Your task to perform on an android device: Search for handmade jewelry on Etsy. Image 0: 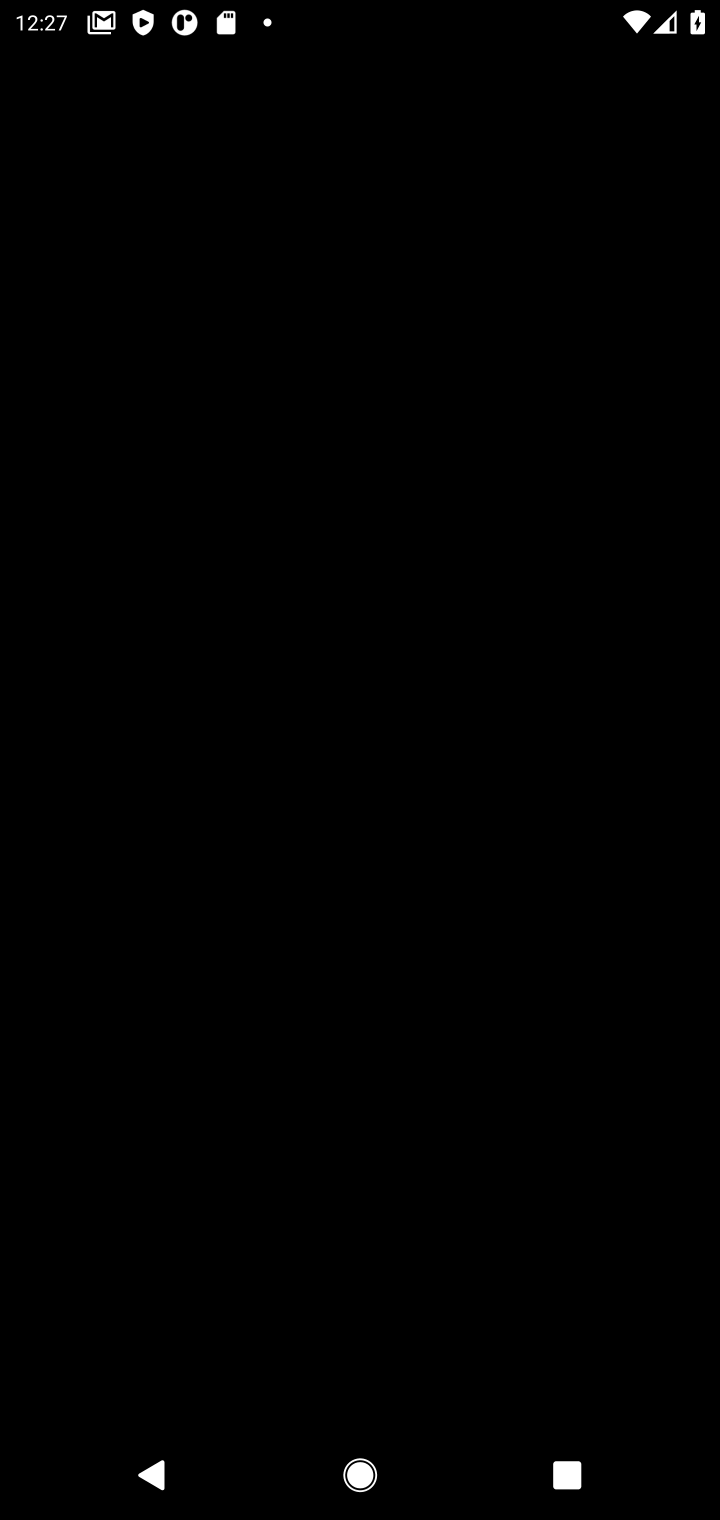
Step 0: press home button
Your task to perform on an android device: Search for handmade jewelry on Etsy. Image 1: 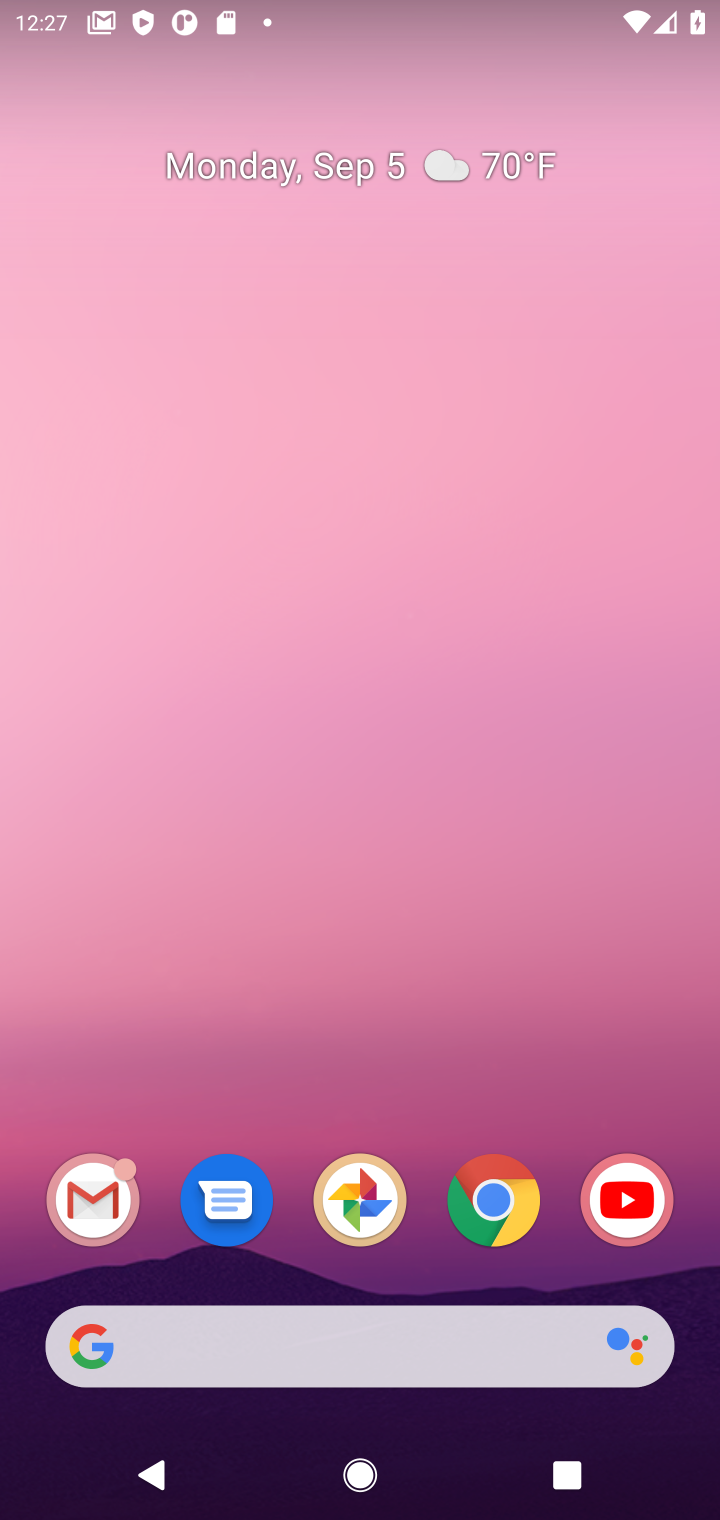
Step 1: click (467, 1207)
Your task to perform on an android device: Search for handmade jewelry on Etsy. Image 2: 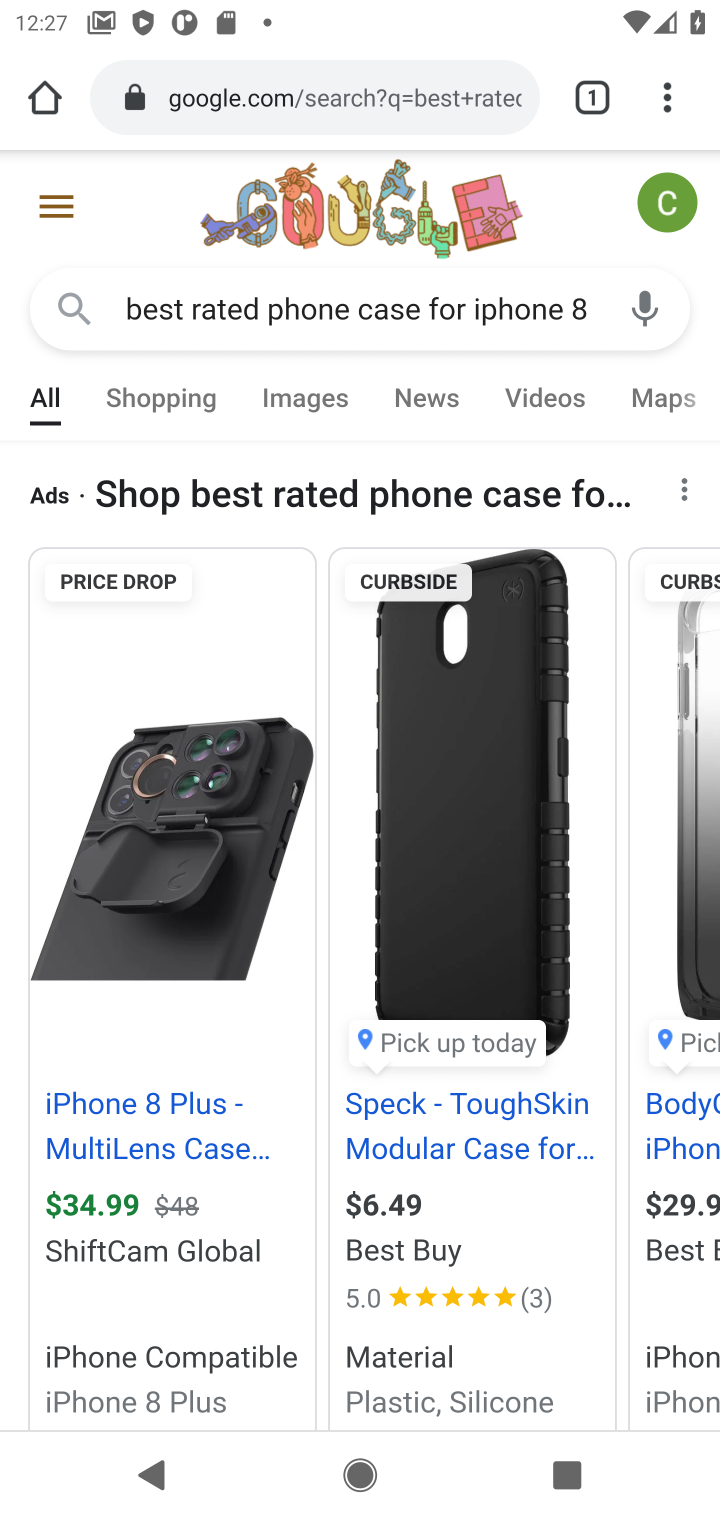
Step 2: click (415, 94)
Your task to perform on an android device: Search for handmade jewelry on Etsy. Image 3: 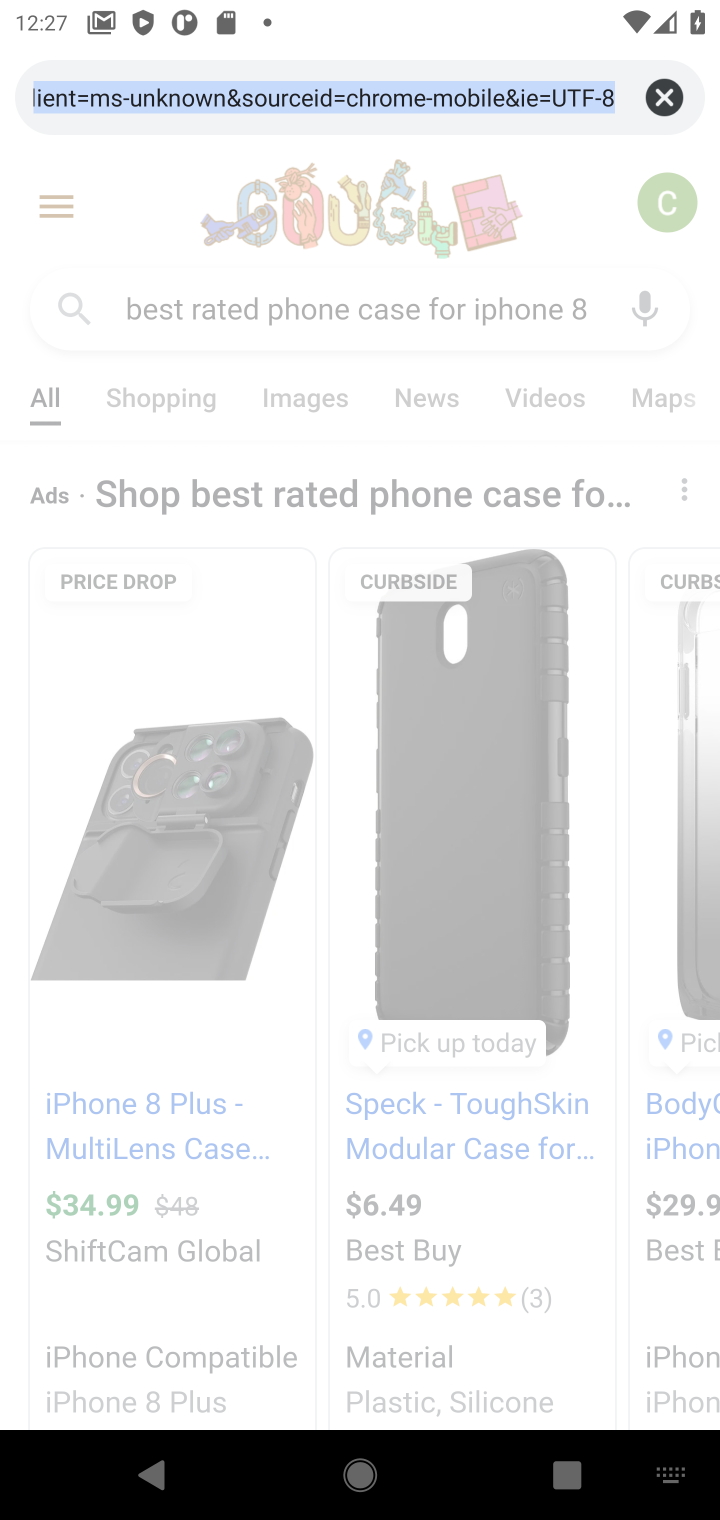
Step 3: type "etsy"
Your task to perform on an android device: Search for handmade jewelry on Etsy. Image 4: 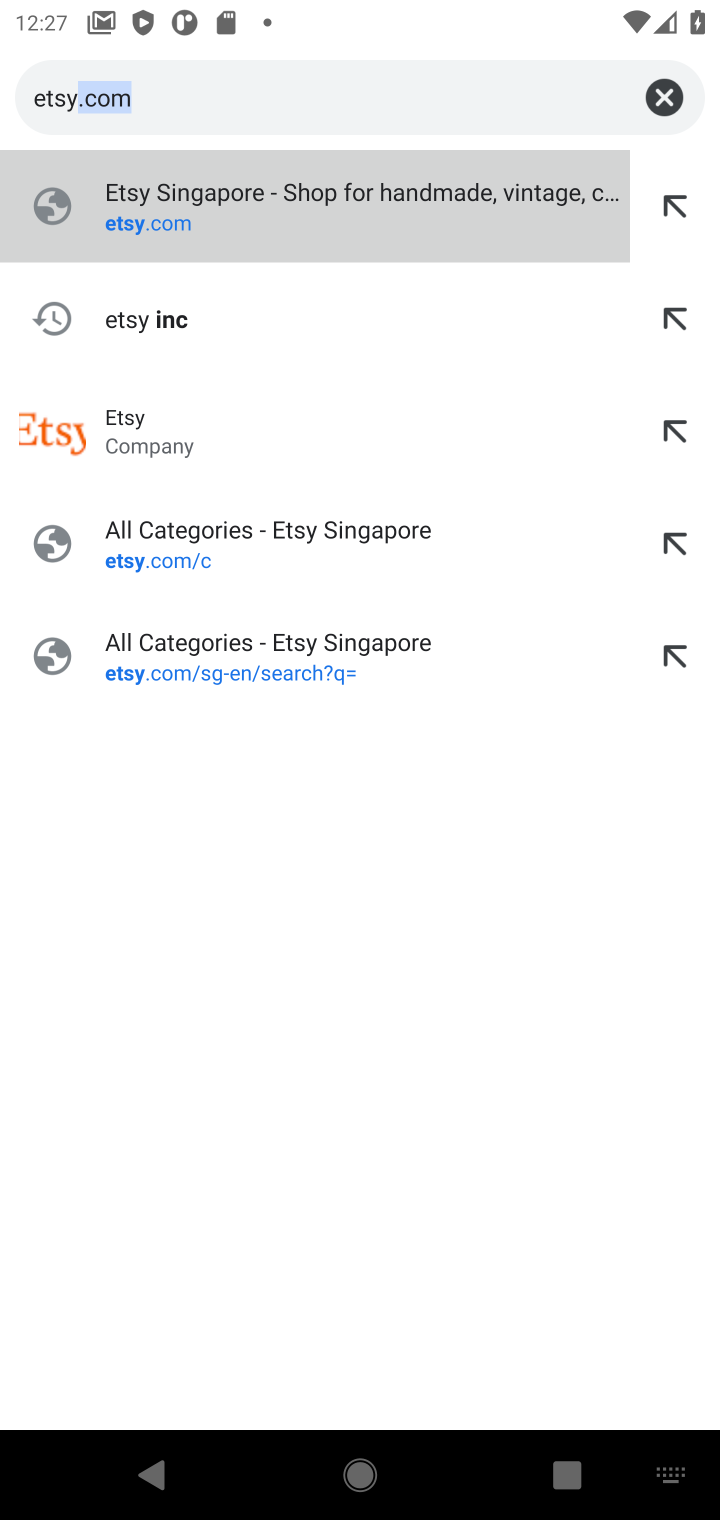
Step 4: click (198, 440)
Your task to perform on an android device: Search for handmade jewelry on Etsy. Image 5: 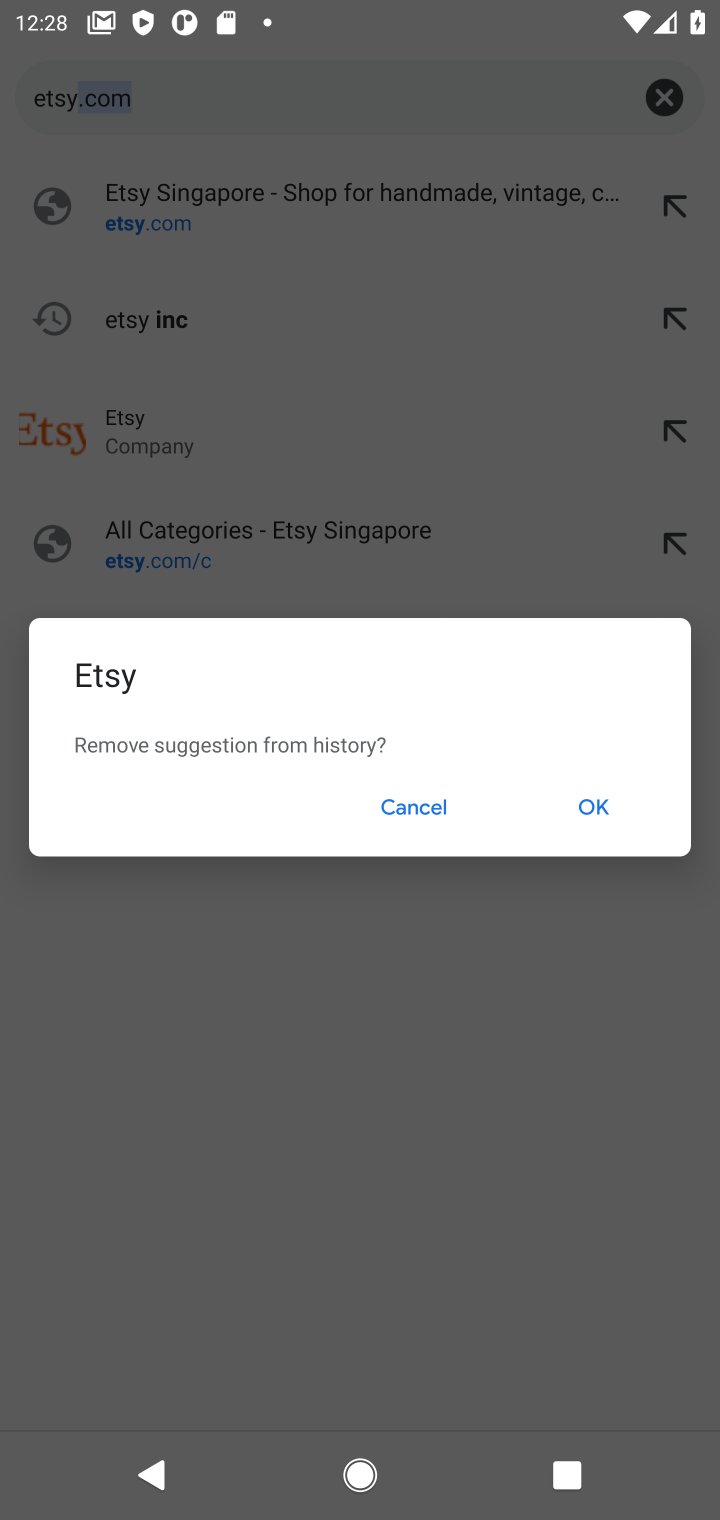
Step 5: click (430, 810)
Your task to perform on an android device: Search for handmade jewelry on Etsy. Image 6: 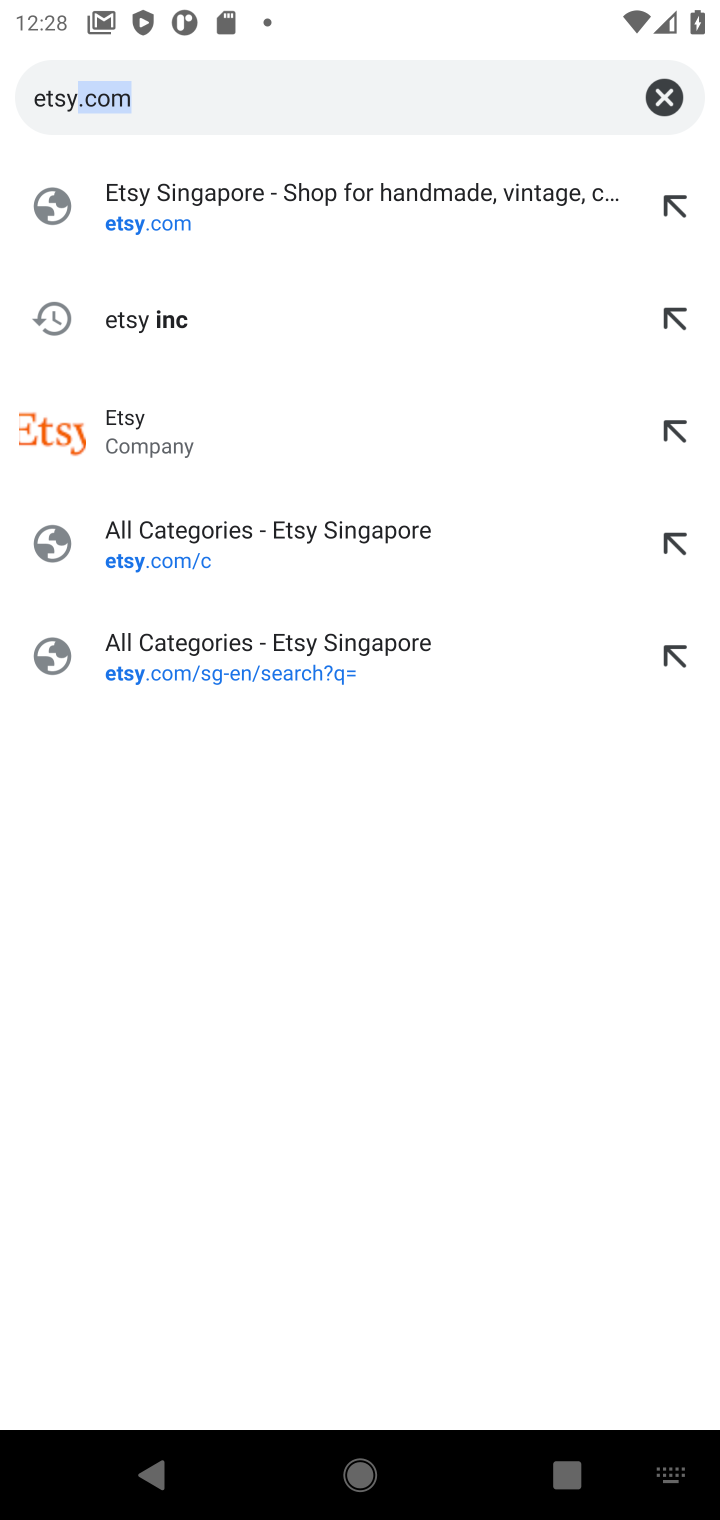
Step 6: click (64, 421)
Your task to perform on an android device: Search for handmade jewelry on Etsy. Image 7: 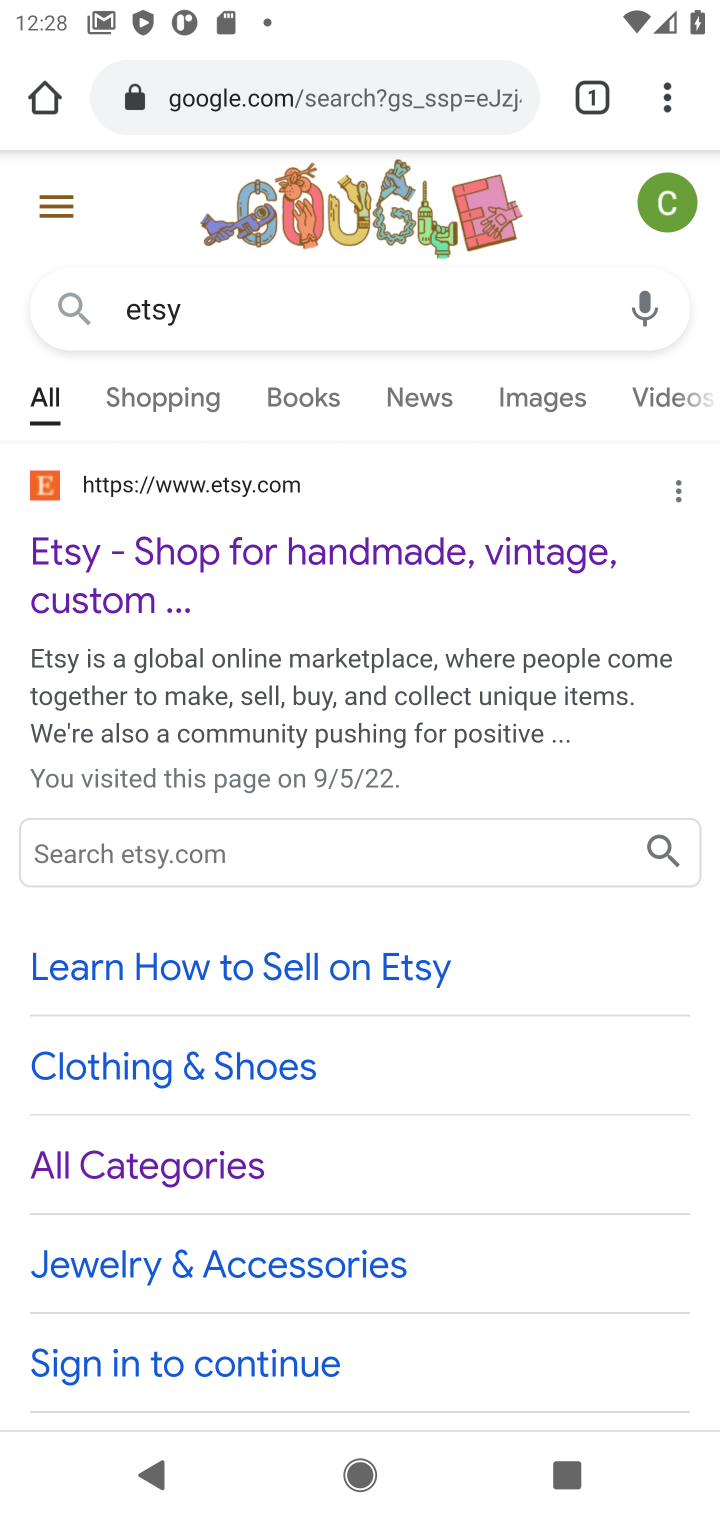
Step 7: click (143, 560)
Your task to perform on an android device: Search for handmade jewelry on Etsy. Image 8: 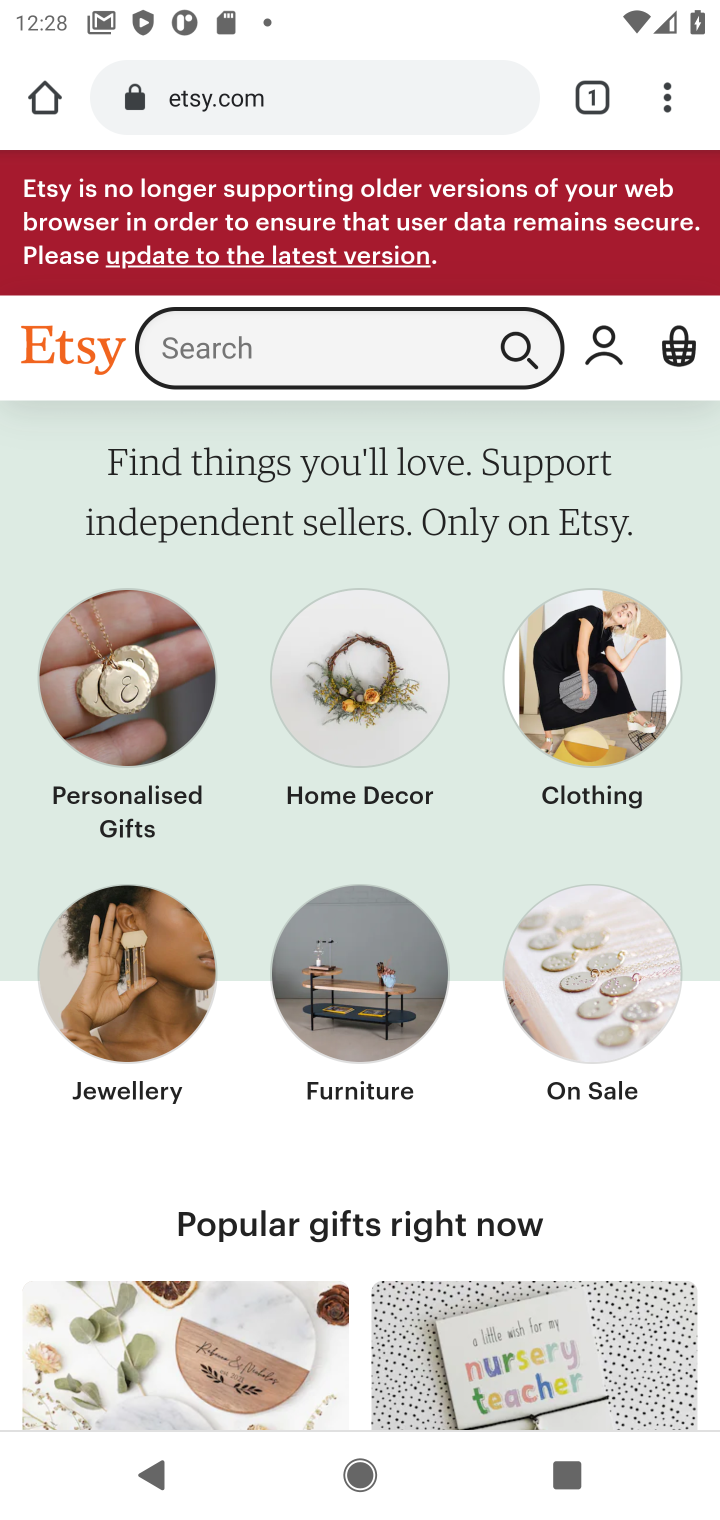
Step 8: click (232, 362)
Your task to perform on an android device: Search for handmade jewelry on Etsy. Image 9: 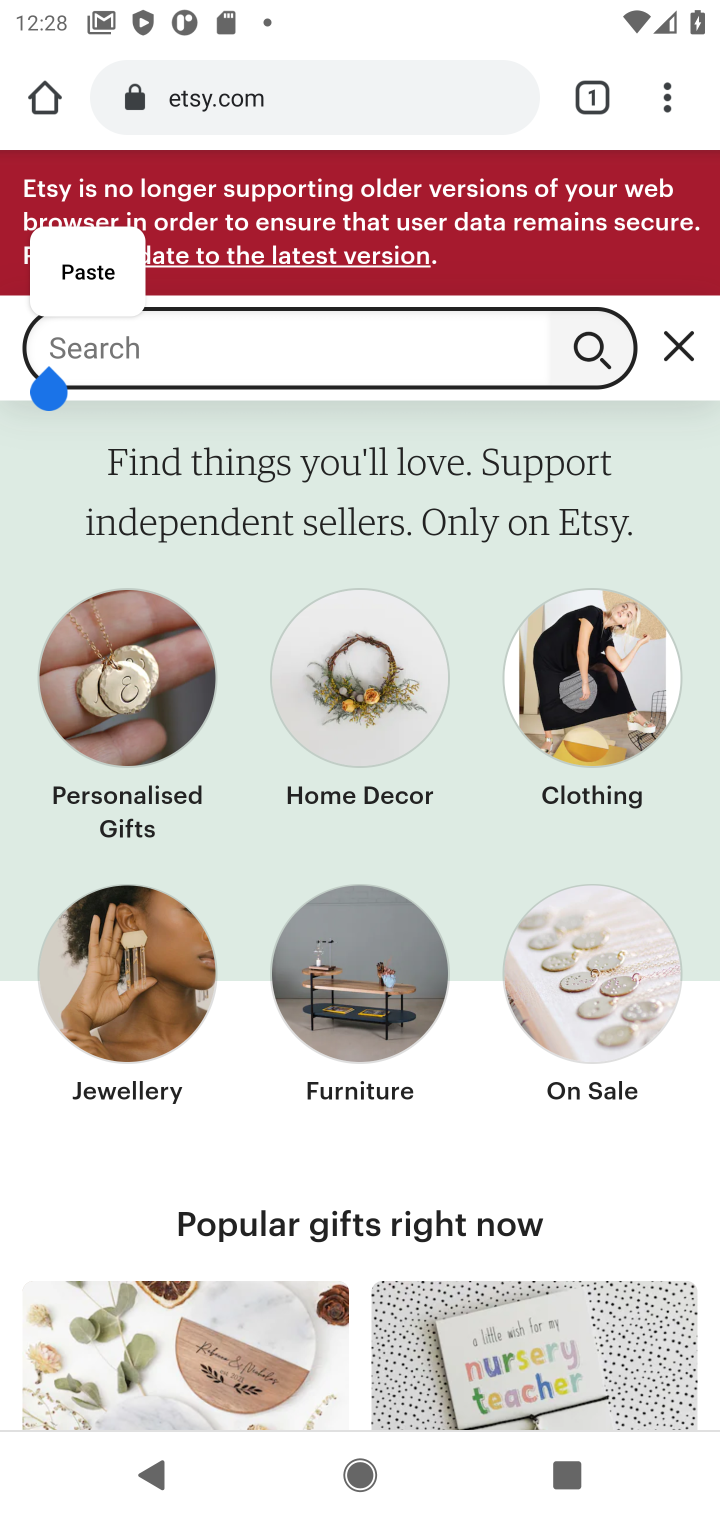
Step 9: click (371, 352)
Your task to perform on an android device: Search for handmade jewelry on Etsy. Image 10: 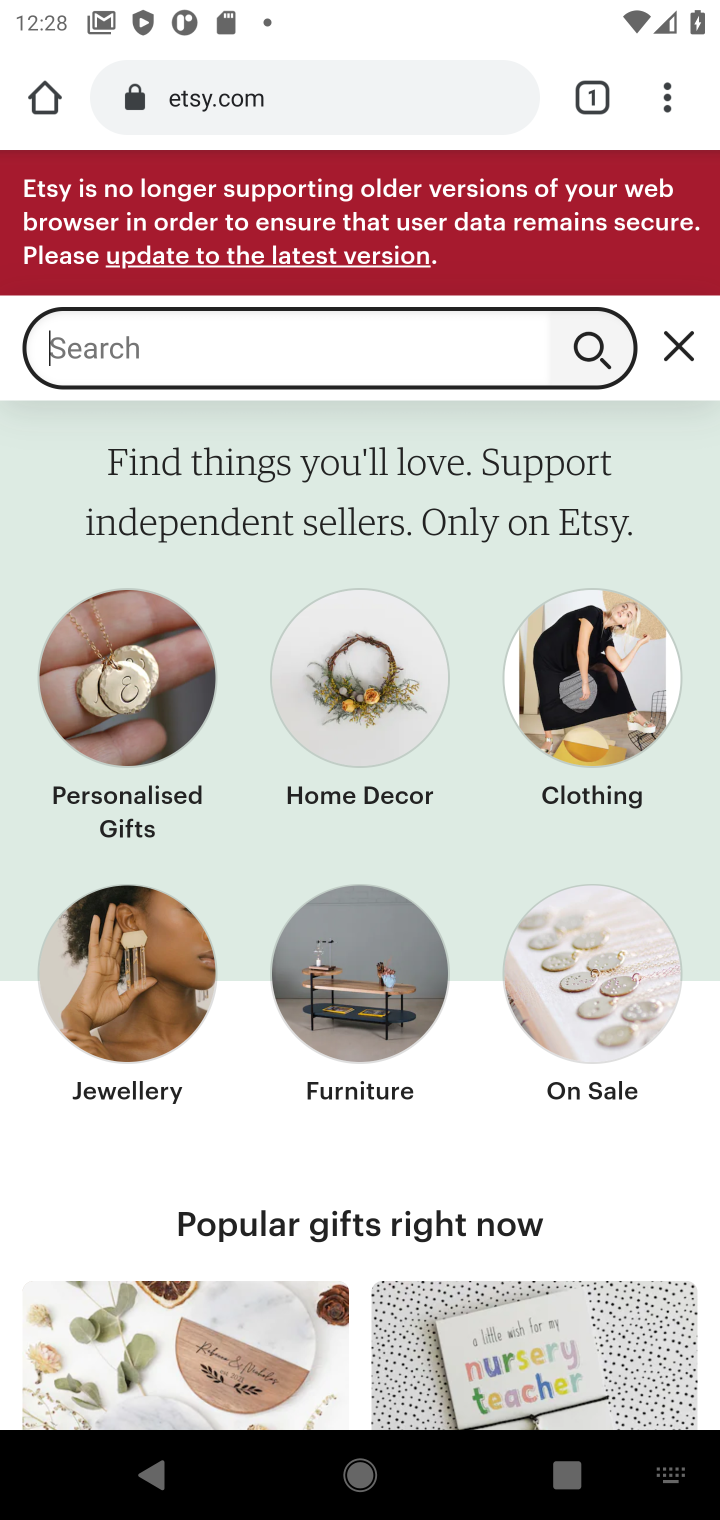
Step 10: type "handmade jewelry"
Your task to perform on an android device: Search for handmade jewelry on Etsy. Image 11: 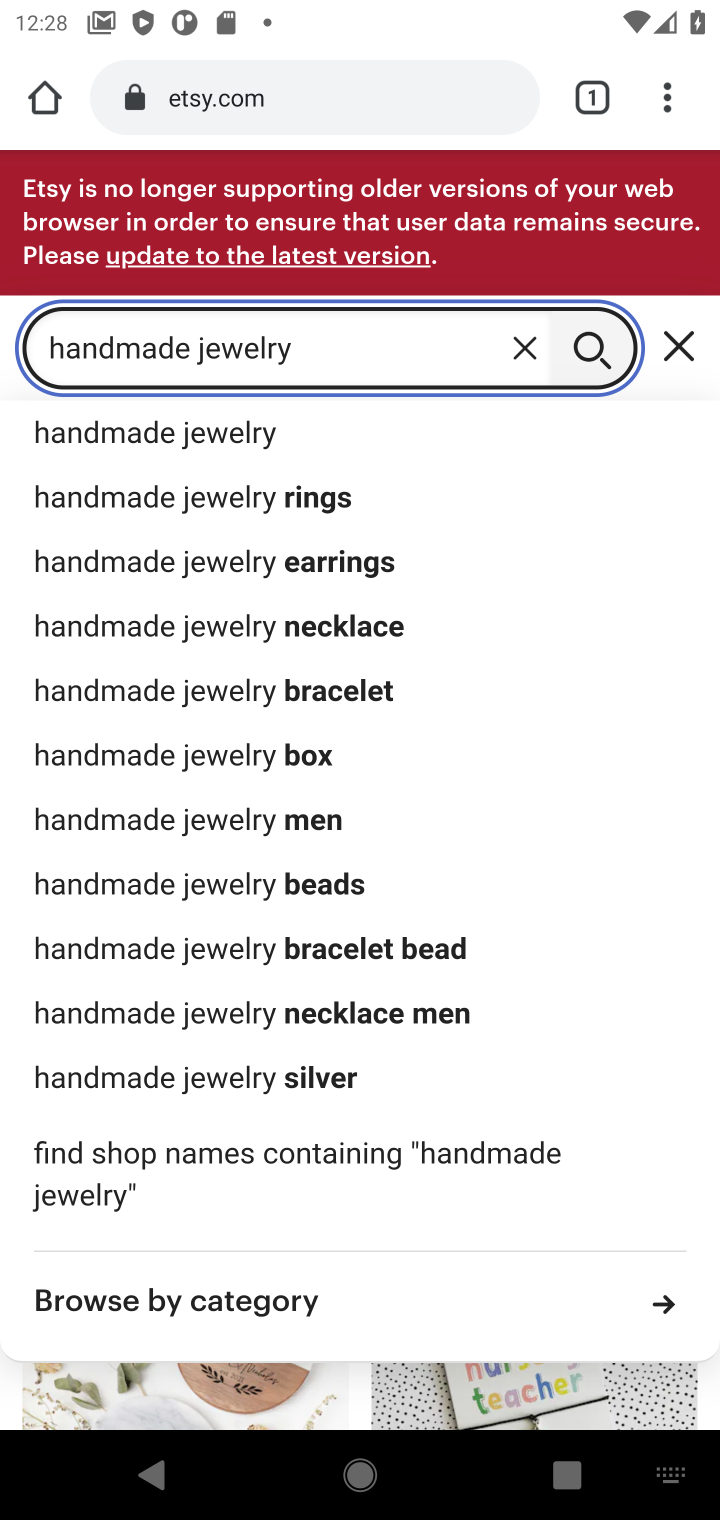
Step 11: click (251, 427)
Your task to perform on an android device: Search for handmade jewelry on Etsy. Image 12: 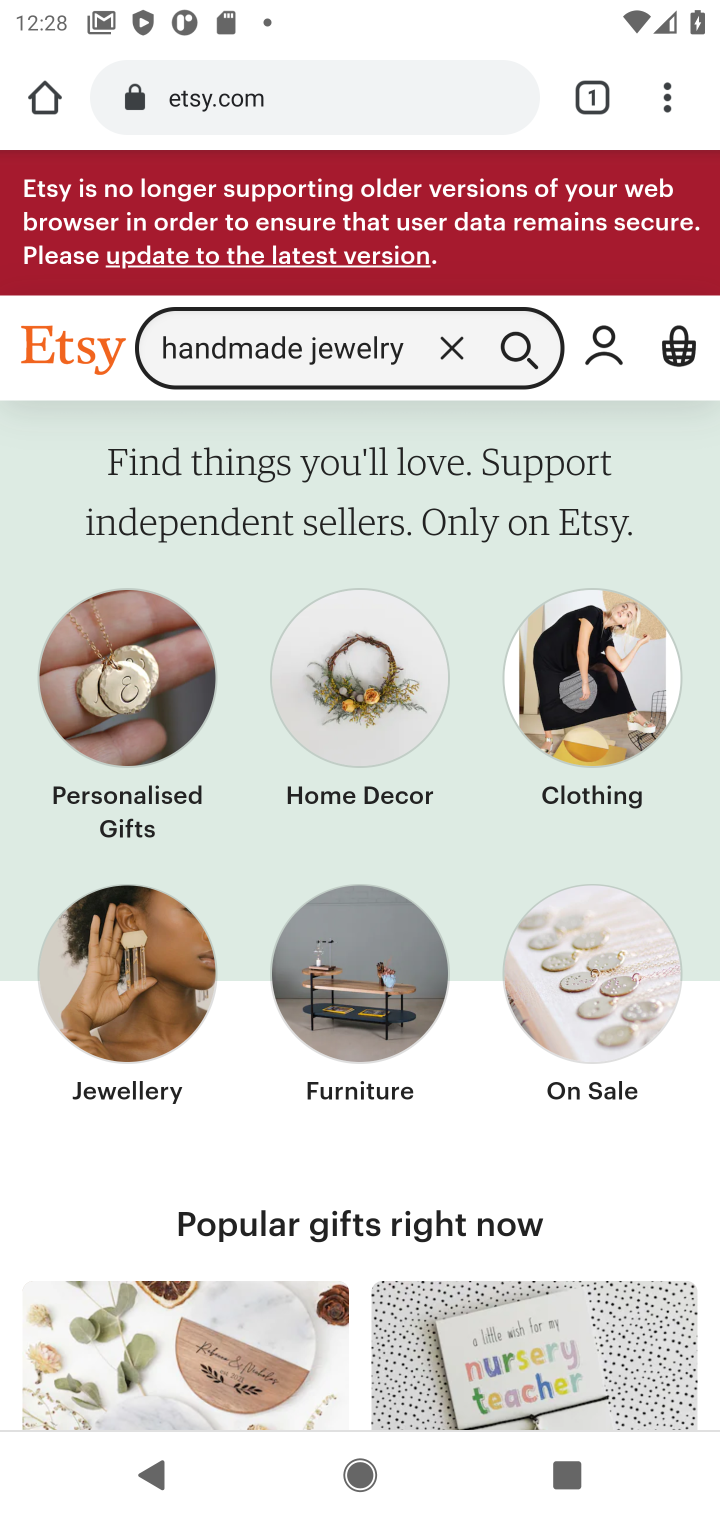
Step 12: click (510, 343)
Your task to perform on an android device: Search for handmade jewelry on Etsy. Image 13: 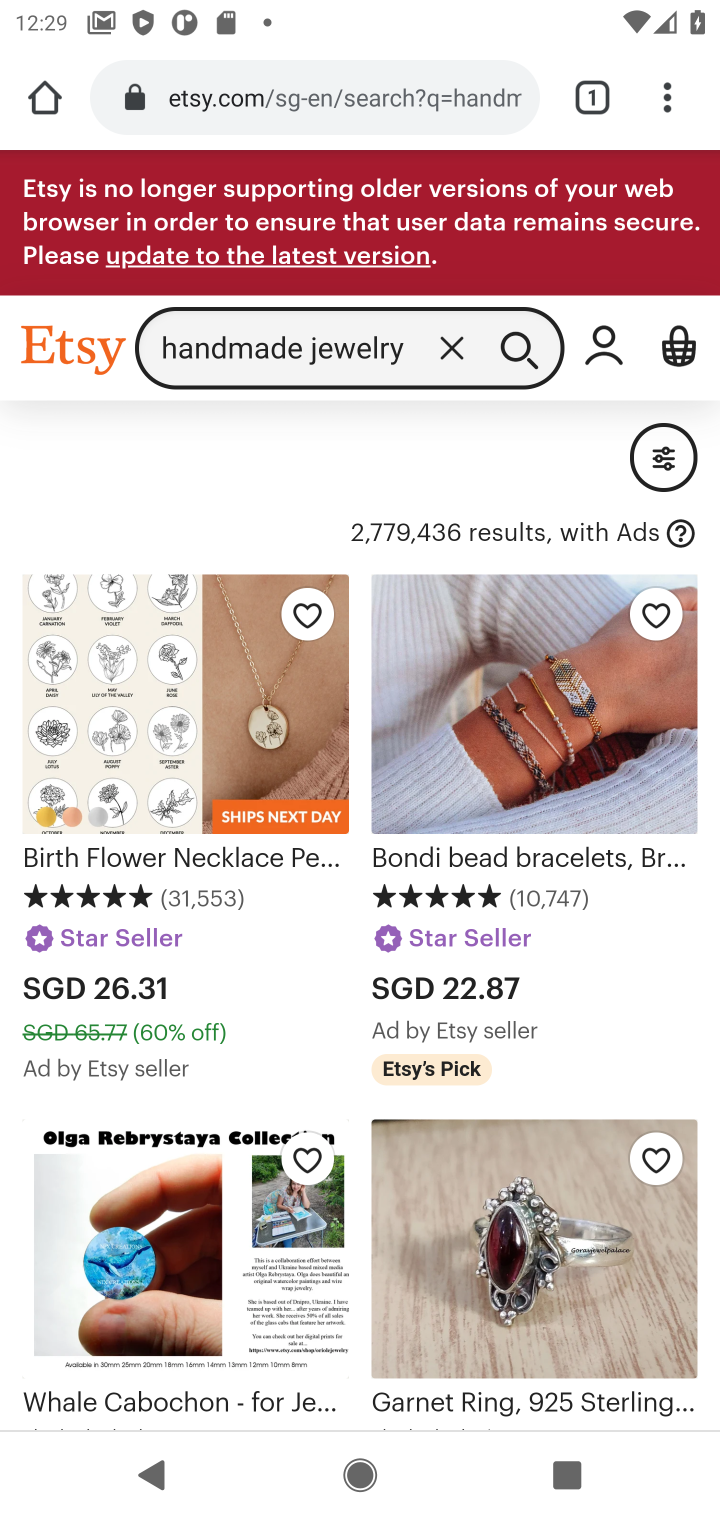
Step 13: task complete